Your task to perform on an android device: Go to Android settings Image 0: 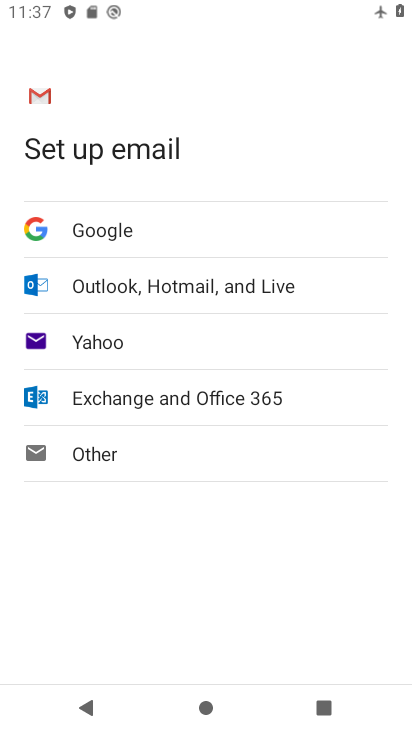
Step 0: press home button
Your task to perform on an android device: Go to Android settings Image 1: 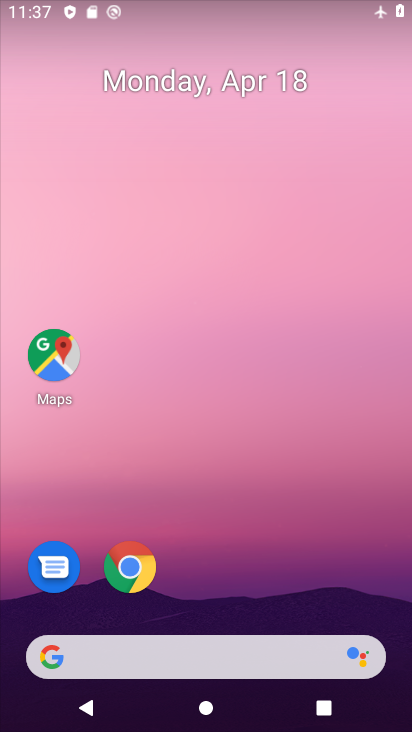
Step 1: drag from (358, 595) to (362, 68)
Your task to perform on an android device: Go to Android settings Image 2: 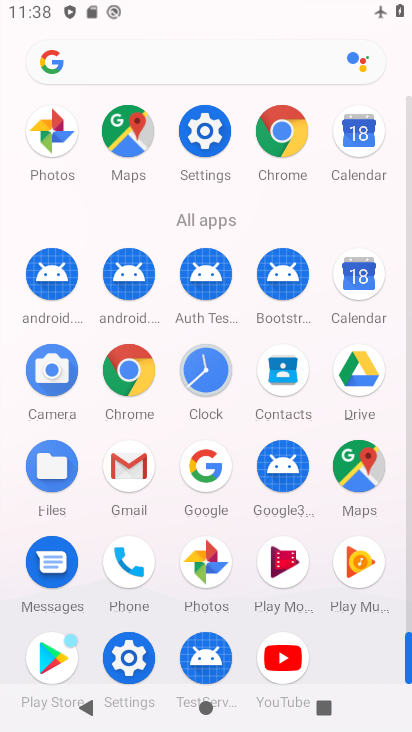
Step 2: click (126, 660)
Your task to perform on an android device: Go to Android settings Image 3: 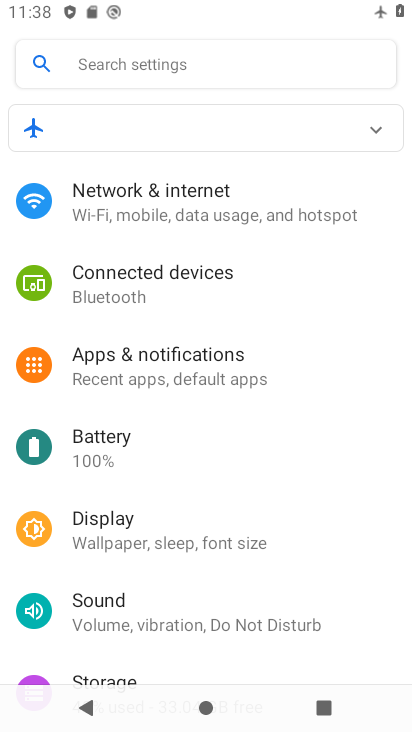
Step 3: drag from (329, 617) to (345, 234)
Your task to perform on an android device: Go to Android settings Image 4: 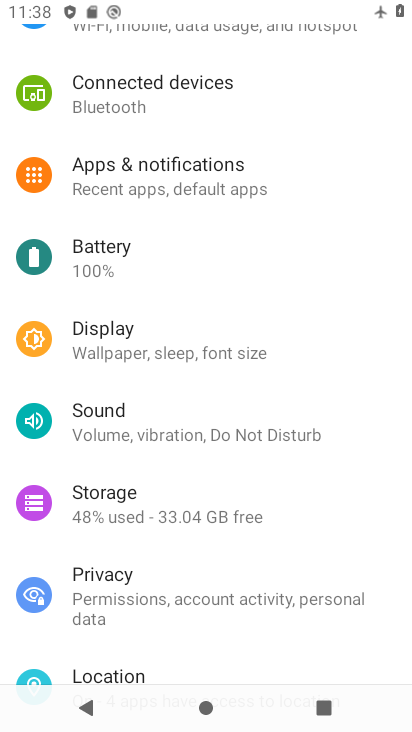
Step 4: drag from (341, 604) to (340, 151)
Your task to perform on an android device: Go to Android settings Image 5: 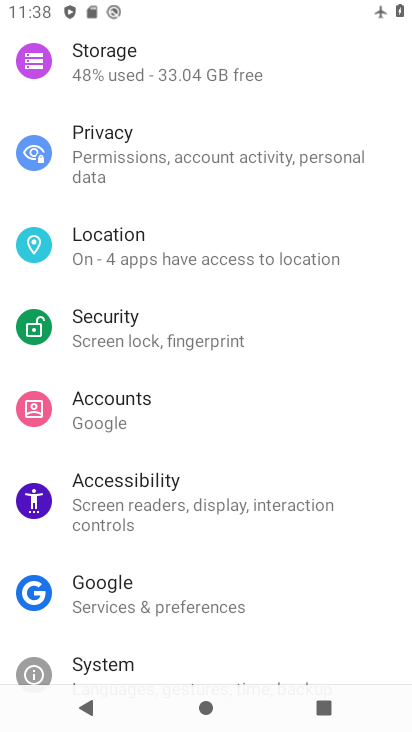
Step 5: drag from (343, 557) to (374, 184)
Your task to perform on an android device: Go to Android settings Image 6: 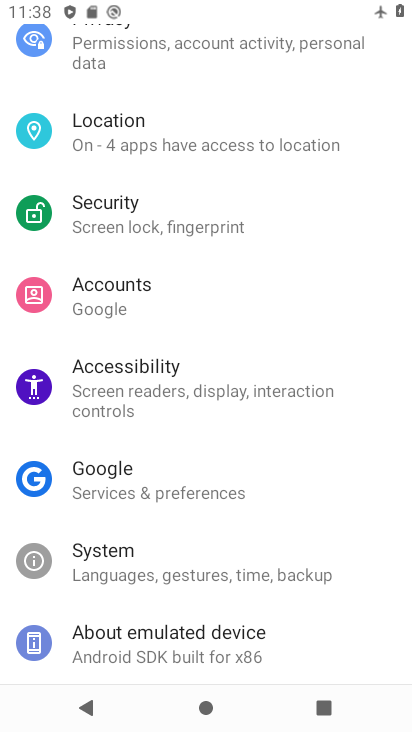
Step 6: click (114, 643)
Your task to perform on an android device: Go to Android settings Image 7: 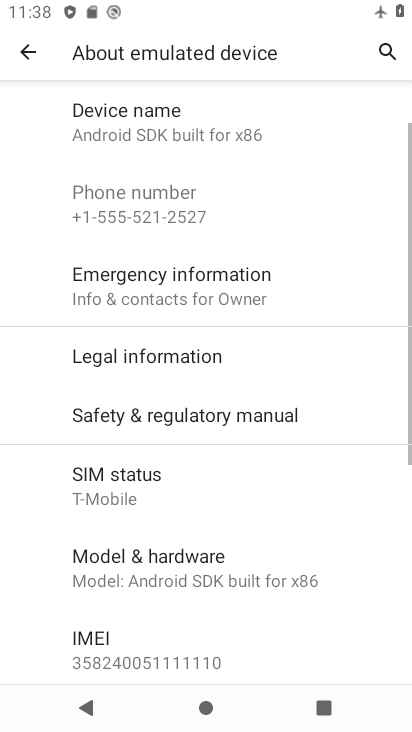
Step 7: task complete